Your task to perform on an android device: Open Reddit.com Image 0: 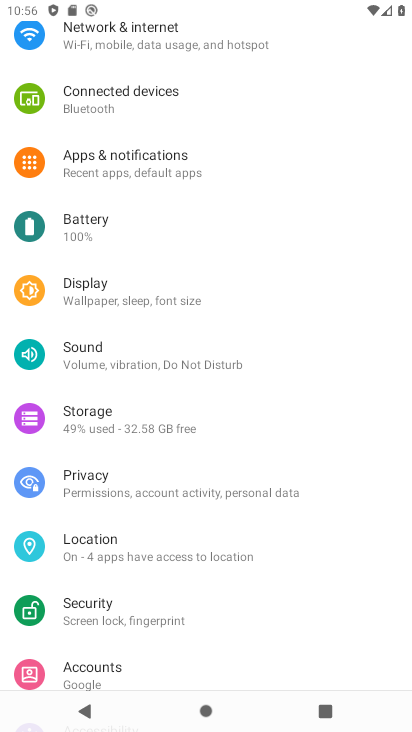
Step 0: press home button
Your task to perform on an android device: Open Reddit.com Image 1: 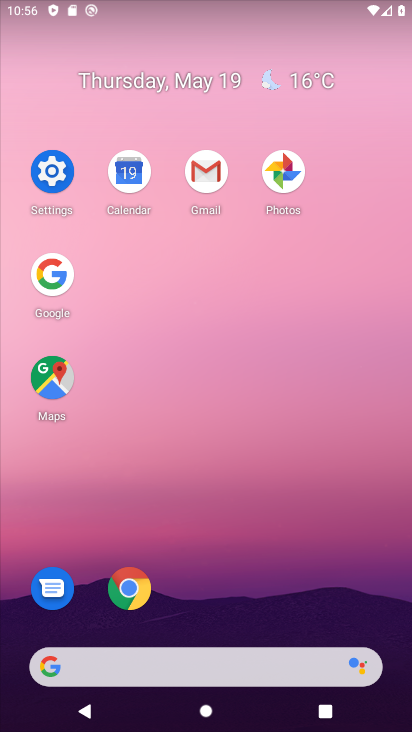
Step 1: click (122, 593)
Your task to perform on an android device: Open Reddit.com Image 2: 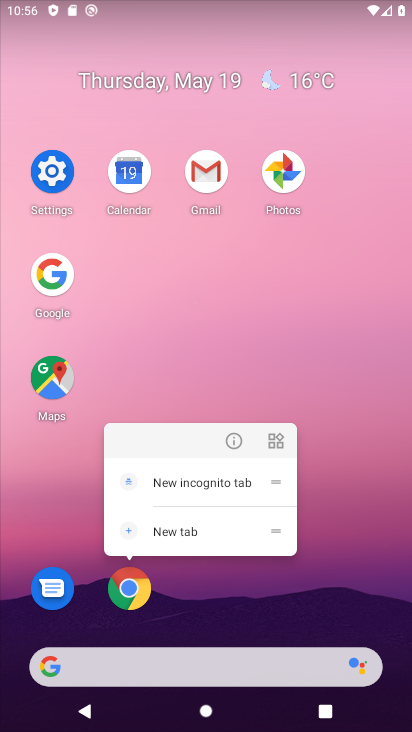
Step 2: click (134, 602)
Your task to perform on an android device: Open Reddit.com Image 3: 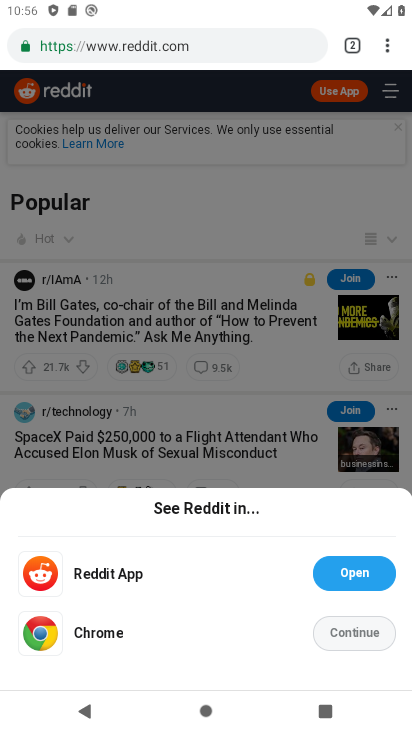
Step 3: task complete